Your task to perform on an android device: Open sound settings Image 0: 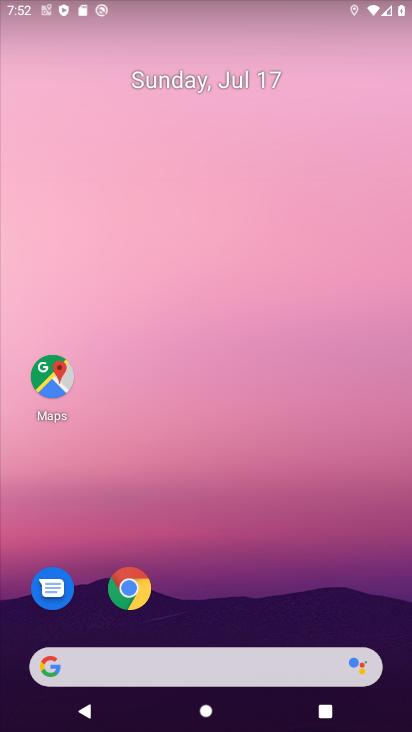
Step 0: drag from (220, 467) to (263, 234)
Your task to perform on an android device: Open sound settings Image 1: 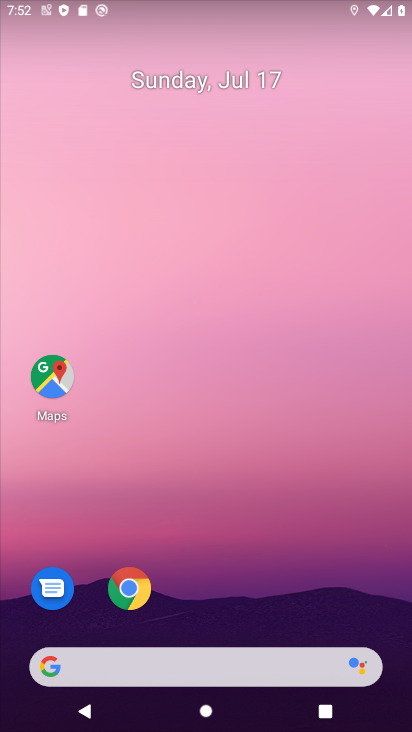
Step 1: drag from (206, 505) to (277, 221)
Your task to perform on an android device: Open sound settings Image 2: 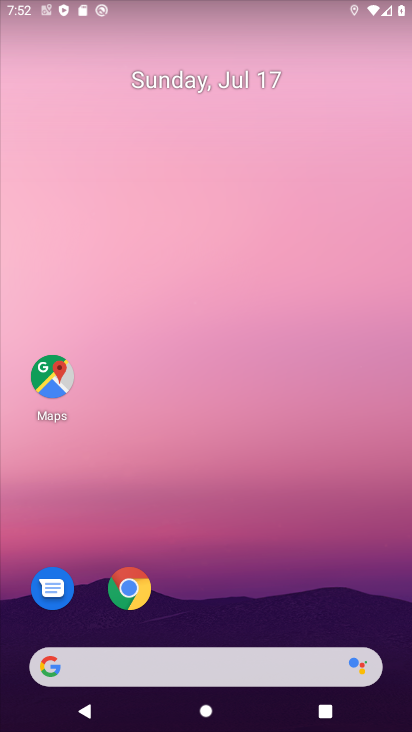
Step 2: drag from (221, 664) to (280, 263)
Your task to perform on an android device: Open sound settings Image 3: 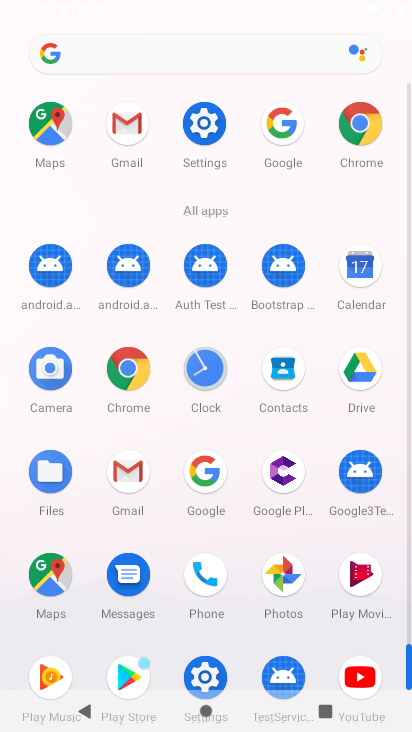
Step 3: click (209, 133)
Your task to perform on an android device: Open sound settings Image 4: 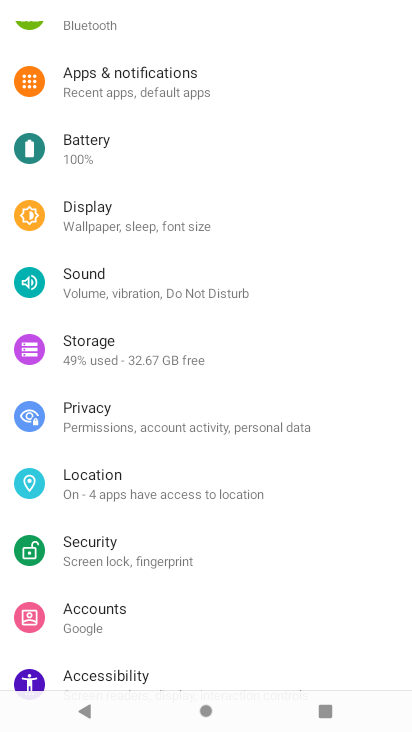
Step 4: click (133, 284)
Your task to perform on an android device: Open sound settings Image 5: 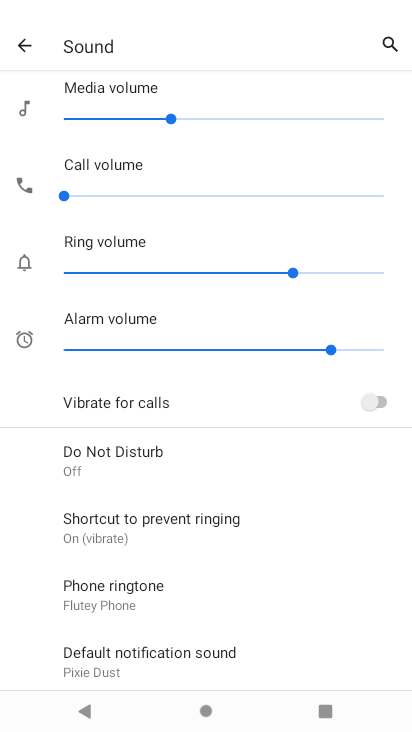
Step 5: task complete